Your task to perform on an android device: Go to notification settings Image 0: 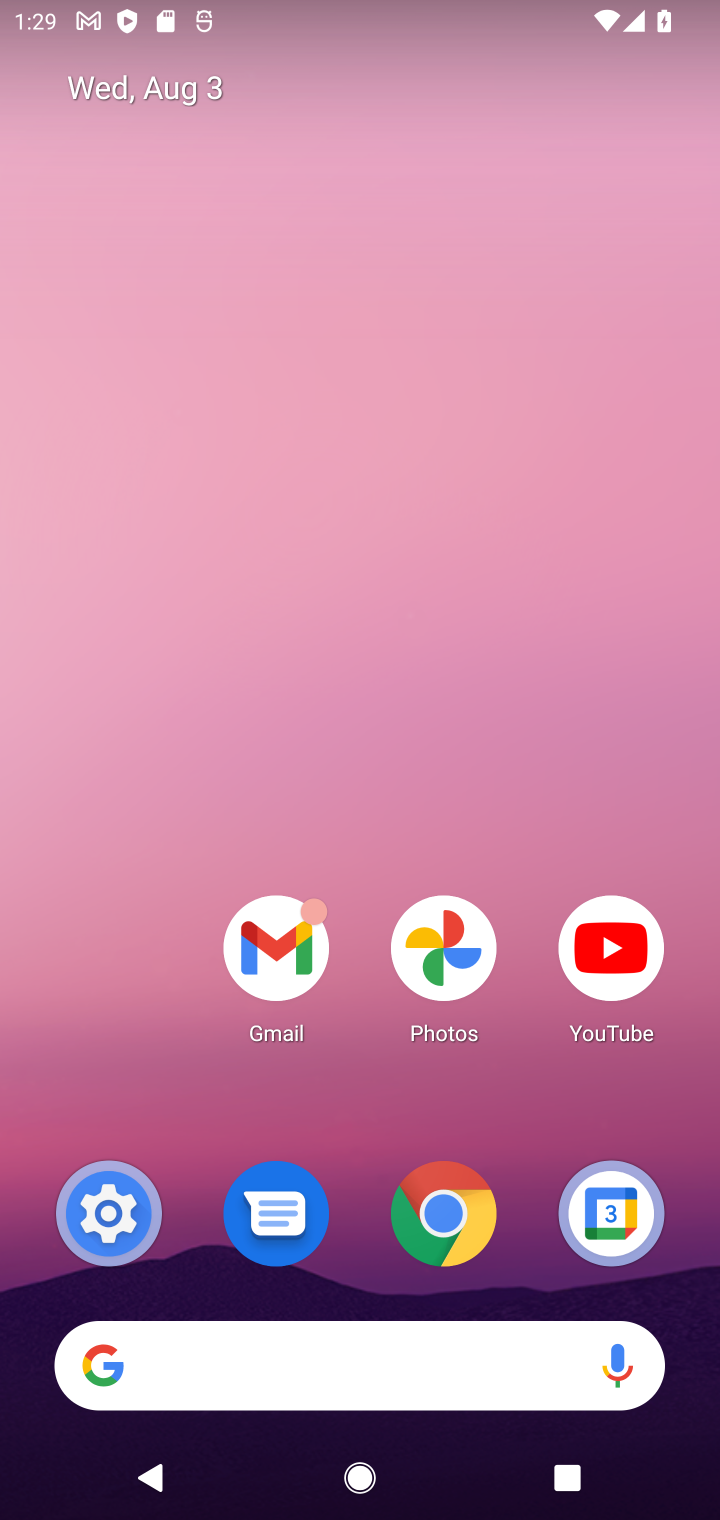
Step 0: drag from (524, 1061) to (503, 85)
Your task to perform on an android device: Go to notification settings Image 1: 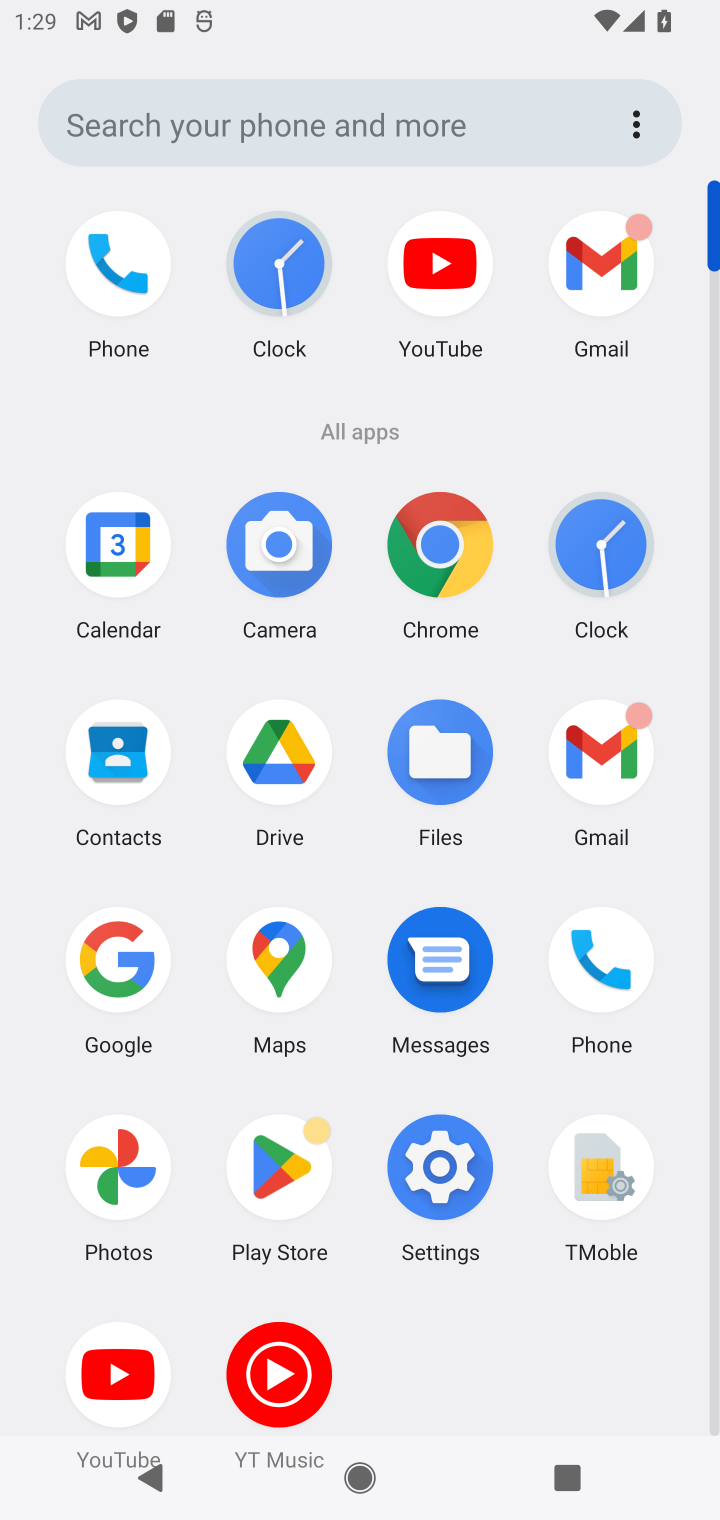
Step 1: click (463, 1173)
Your task to perform on an android device: Go to notification settings Image 2: 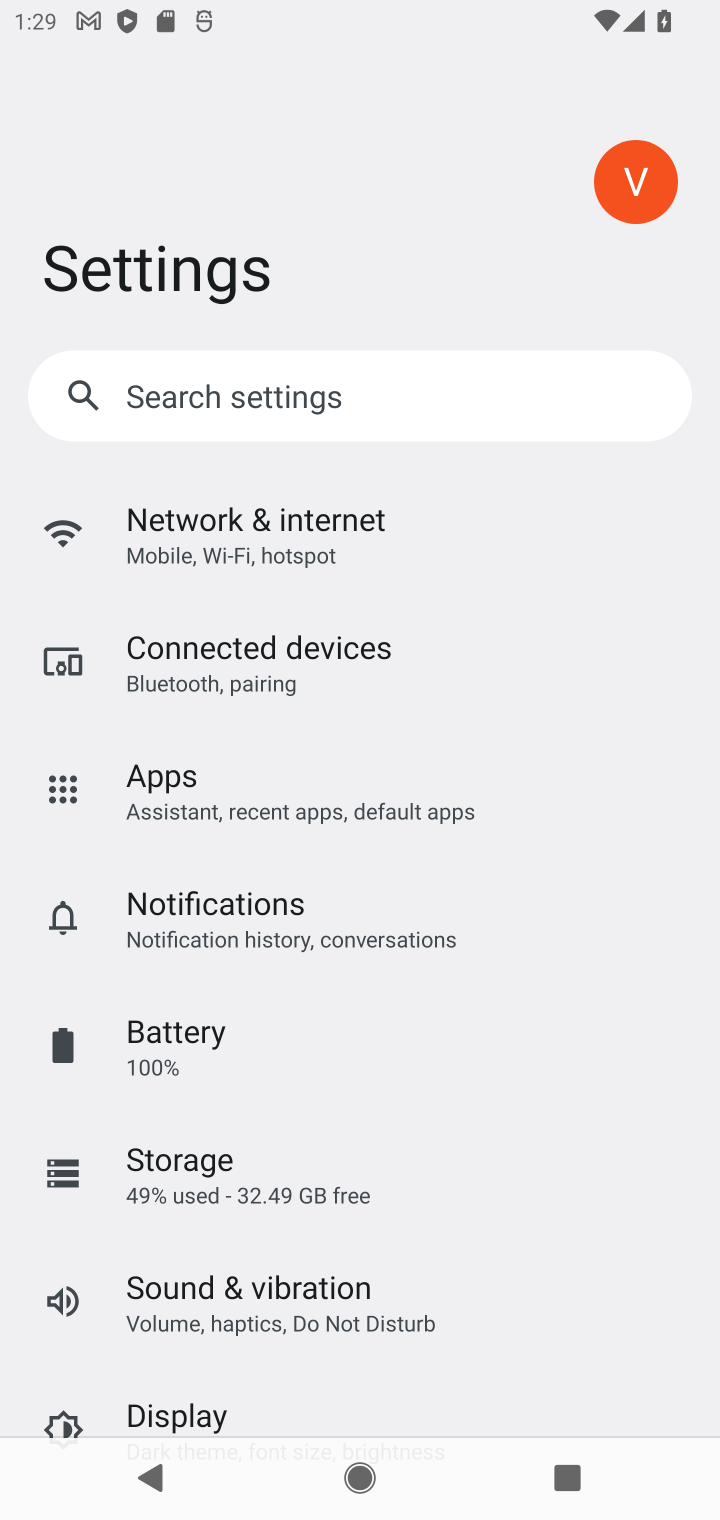
Step 2: click (268, 903)
Your task to perform on an android device: Go to notification settings Image 3: 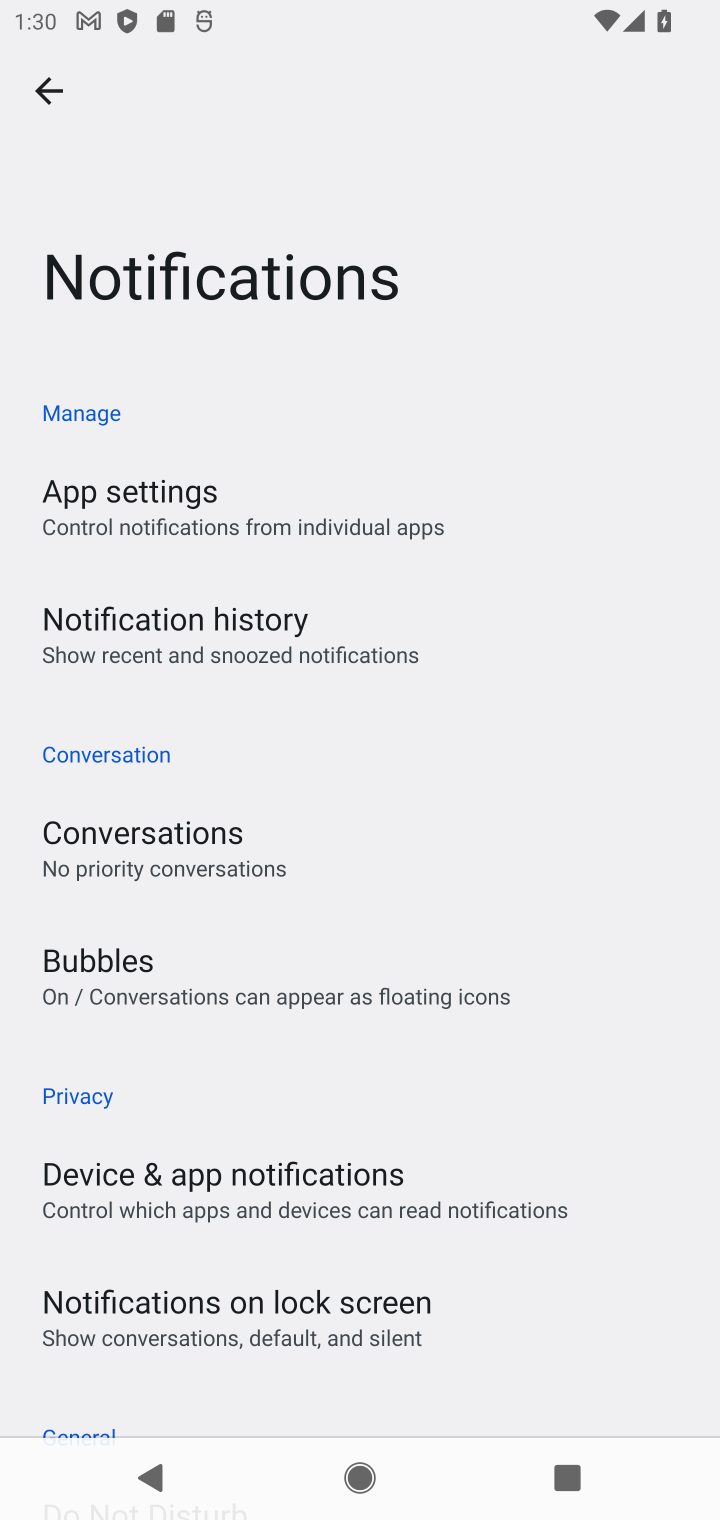
Step 3: task complete